Your task to perform on an android device: Set the phone to "Do not disturb". Image 0: 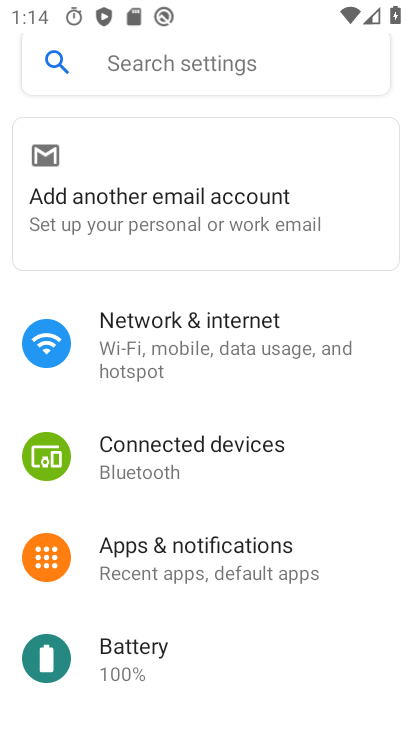
Step 0: drag from (264, 577) to (328, 301)
Your task to perform on an android device: Set the phone to "Do not disturb". Image 1: 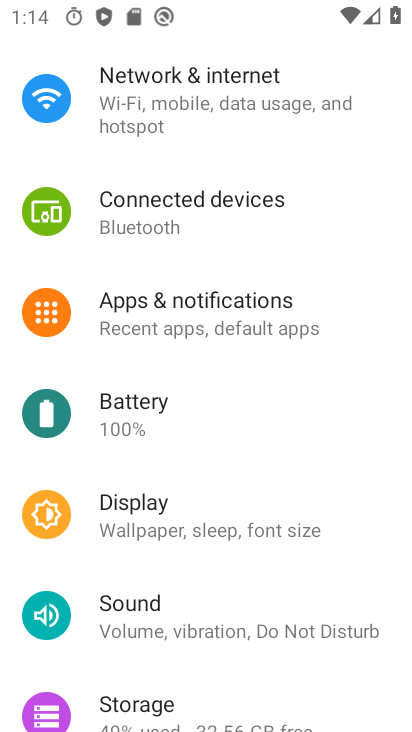
Step 1: click (232, 632)
Your task to perform on an android device: Set the phone to "Do not disturb". Image 2: 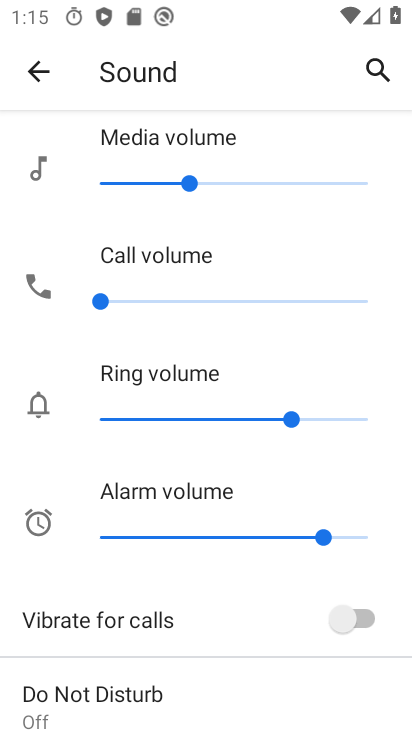
Step 2: drag from (231, 632) to (226, 276)
Your task to perform on an android device: Set the phone to "Do not disturb". Image 3: 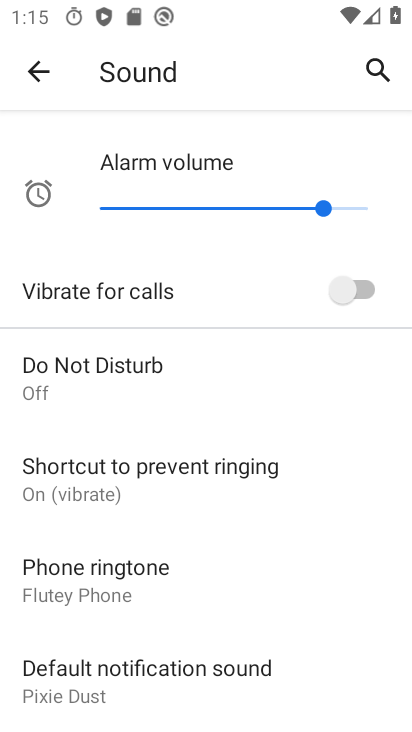
Step 3: drag from (219, 609) to (235, 344)
Your task to perform on an android device: Set the phone to "Do not disturb". Image 4: 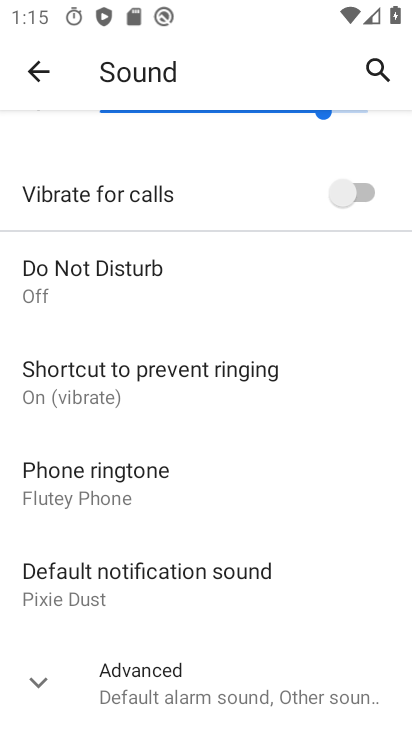
Step 4: click (111, 298)
Your task to perform on an android device: Set the phone to "Do not disturb". Image 5: 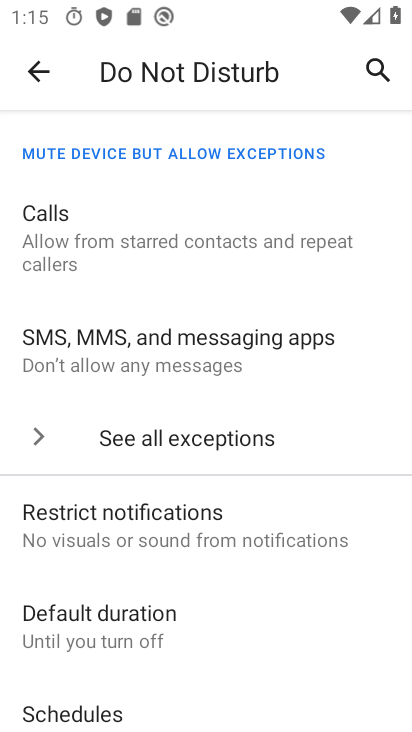
Step 5: drag from (241, 652) to (268, 300)
Your task to perform on an android device: Set the phone to "Do not disturb". Image 6: 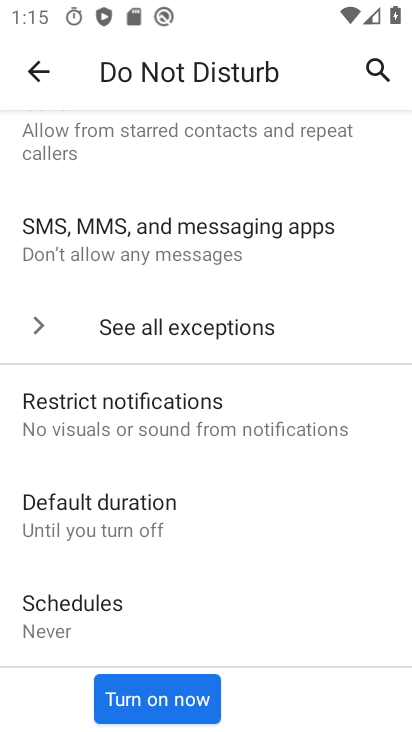
Step 6: click (199, 703)
Your task to perform on an android device: Set the phone to "Do not disturb". Image 7: 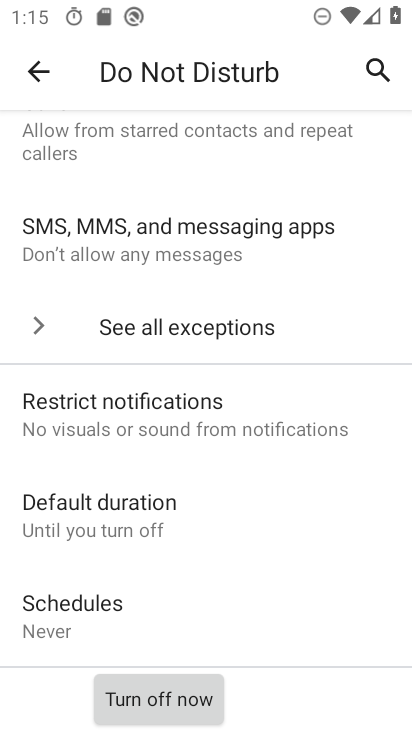
Step 7: task complete